Your task to perform on an android device: Go to privacy settings Image 0: 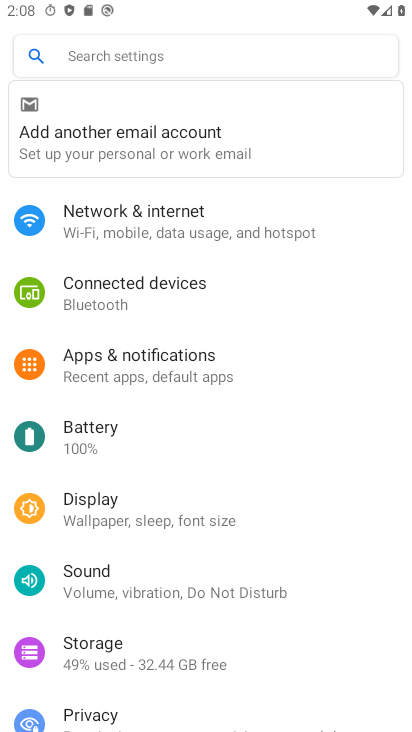
Step 0: press home button
Your task to perform on an android device: Go to privacy settings Image 1: 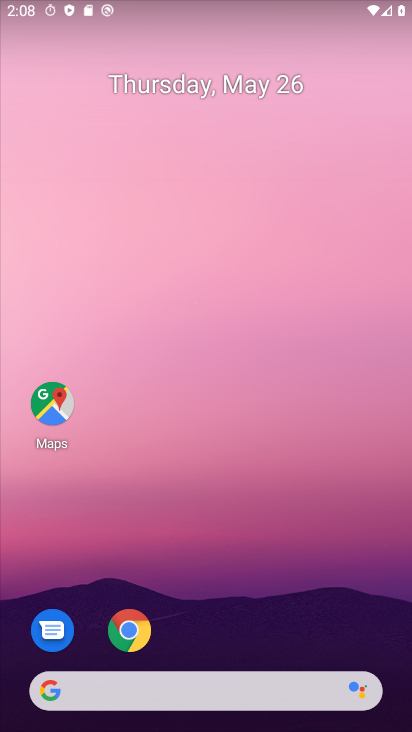
Step 1: drag from (241, 538) to (231, 43)
Your task to perform on an android device: Go to privacy settings Image 2: 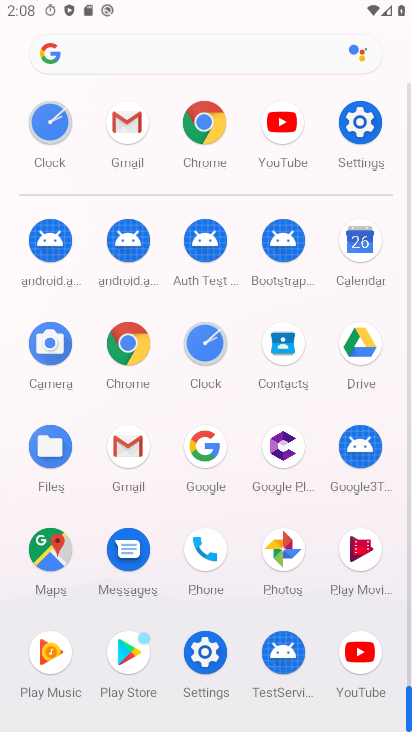
Step 2: click (363, 116)
Your task to perform on an android device: Go to privacy settings Image 3: 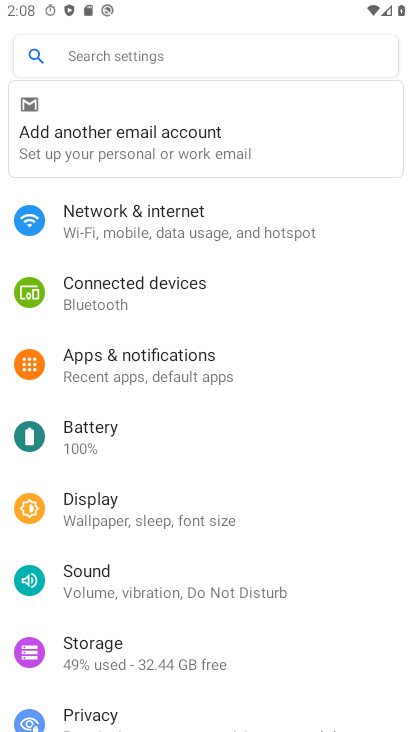
Step 3: click (138, 710)
Your task to perform on an android device: Go to privacy settings Image 4: 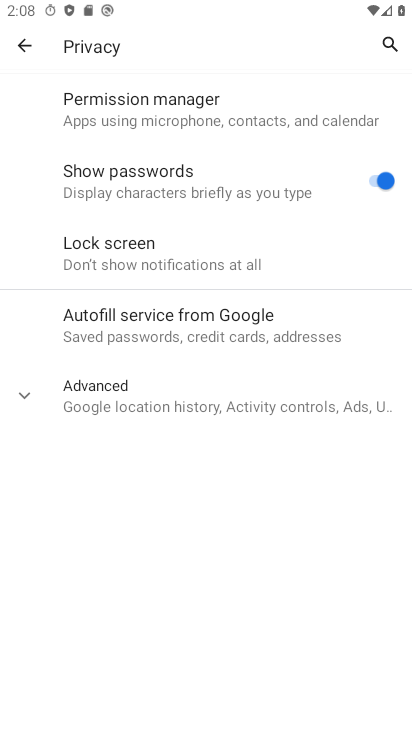
Step 4: task complete